Your task to perform on an android device: change the clock style Image 0: 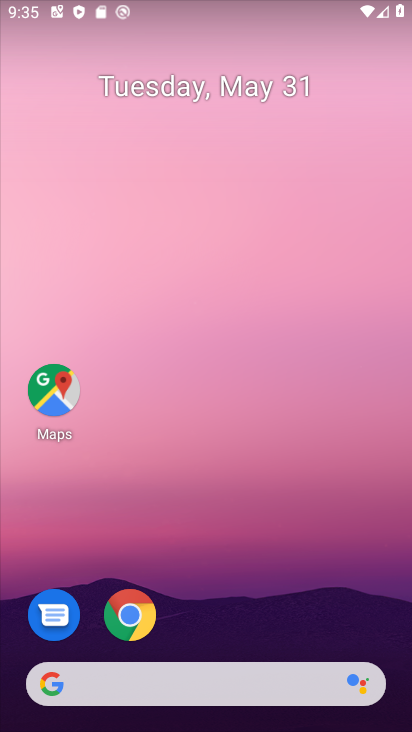
Step 0: drag from (356, 639) to (325, 52)
Your task to perform on an android device: change the clock style Image 1: 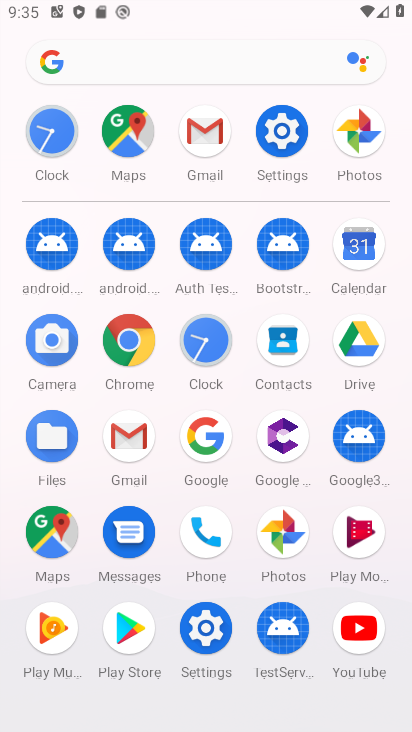
Step 1: click (208, 341)
Your task to perform on an android device: change the clock style Image 2: 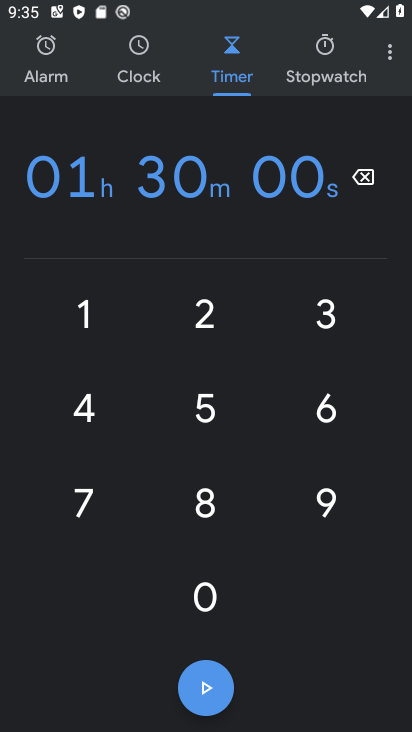
Step 2: click (388, 54)
Your task to perform on an android device: change the clock style Image 3: 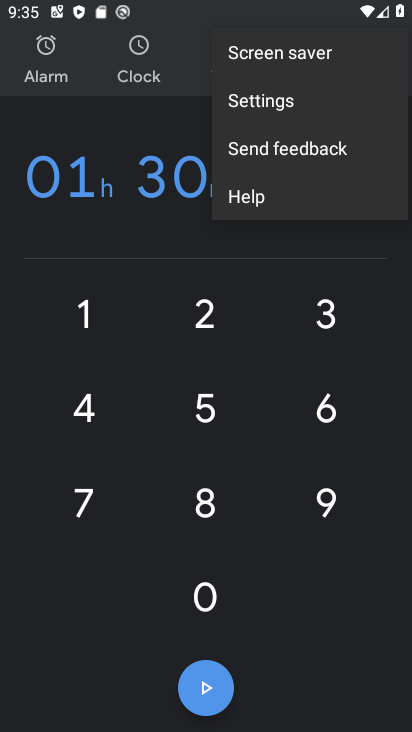
Step 3: click (267, 101)
Your task to perform on an android device: change the clock style Image 4: 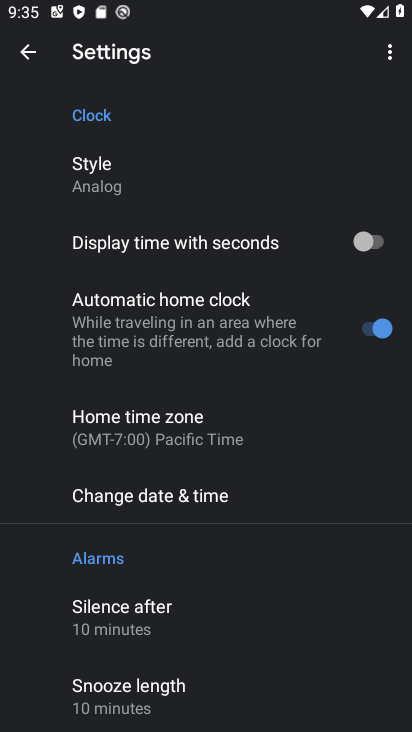
Step 4: click (88, 176)
Your task to perform on an android device: change the clock style Image 5: 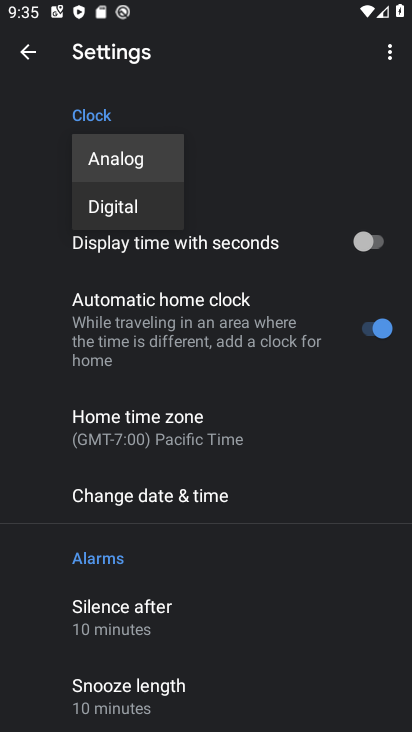
Step 5: click (119, 202)
Your task to perform on an android device: change the clock style Image 6: 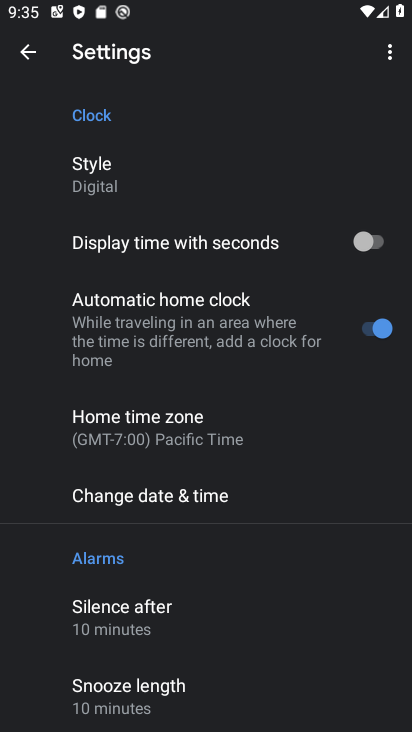
Step 6: task complete